Your task to perform on an android device: What's the weather? Image 0: 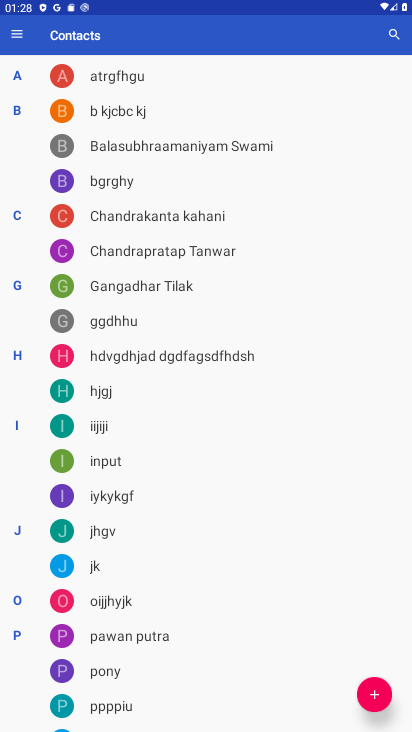
Step 0: press home button
Your task to perform on an android device: What's the weather? Image 1: 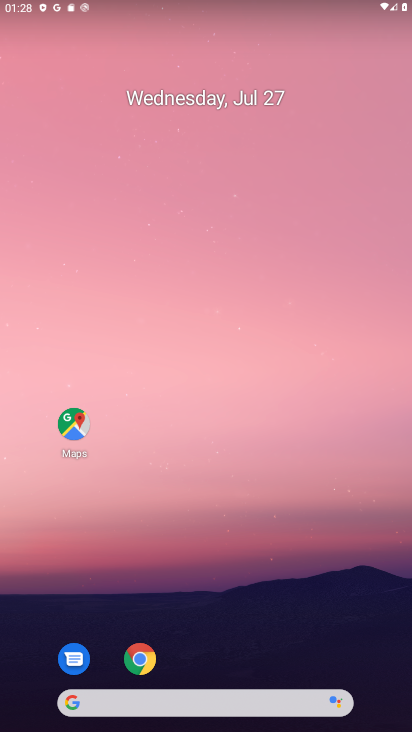
Step 1: click (145, 660)
Your task to perform on an android device: What's the weather? Image 2: 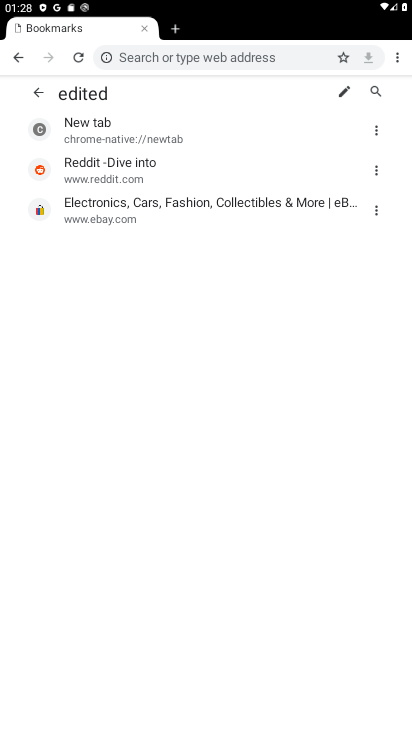
Step 2: click (187, 62)
Your task to perform on an android device: What's the weather? Image 3: 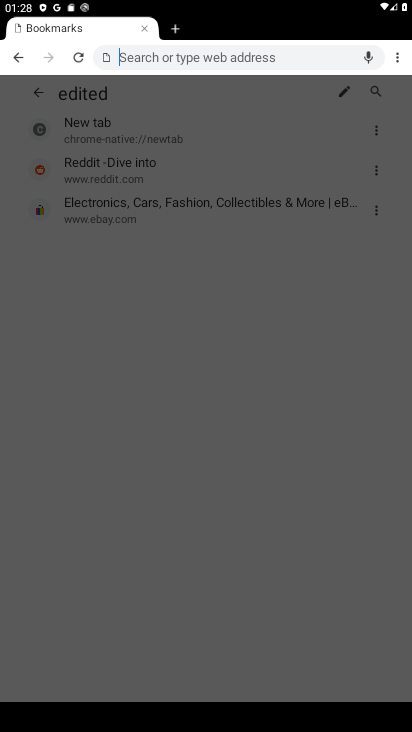
Step 3: type "weather"
Your task to perform on an android device: What's the weather? Image 4: 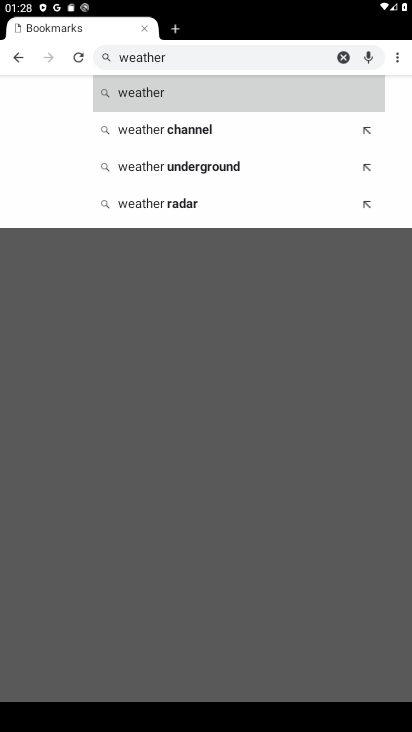
Step 4: click (164, 90)
Your task to perform on an android device: What's the weather? Image 5: 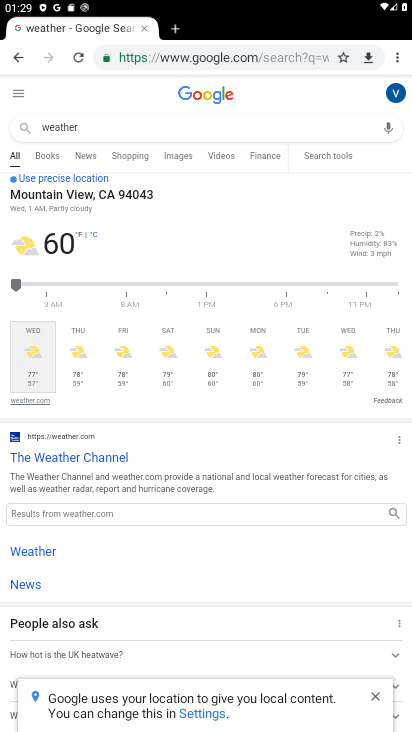
Step 5: task complete